Your task to perform on an android device: turn off notifications in google photos Image 0: 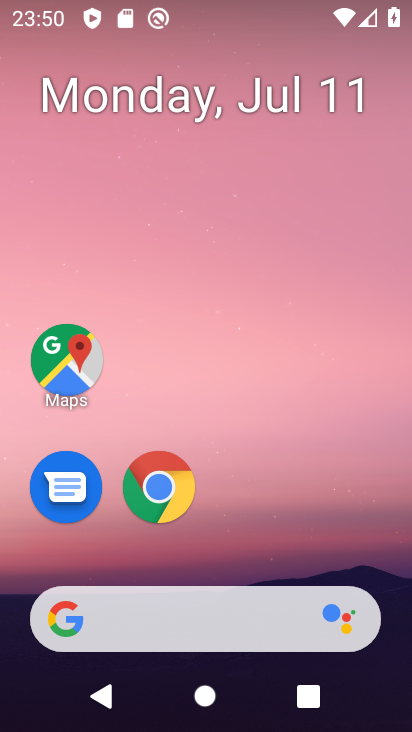
Step 0: drag from (354, 534) to (314, 188)
Your task to perform on an android device: turn off notifications in google photos Image 1: 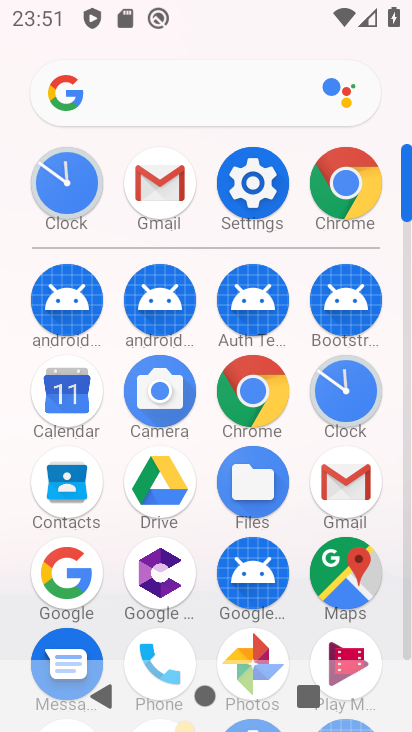
Step 1: drag from (391, 629) to (383, 425)
Your task to perform on an android device: turn off notifications in google photos Image 2: 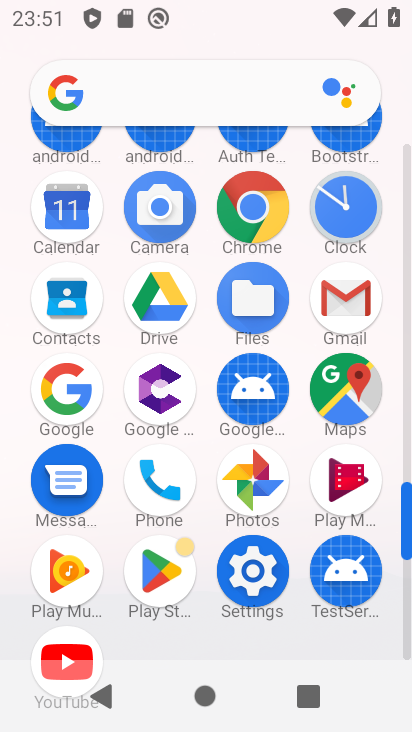
Step 2: click (248, 488)
Your task to perform on an android device: turn off notifications in google photos Image 3: 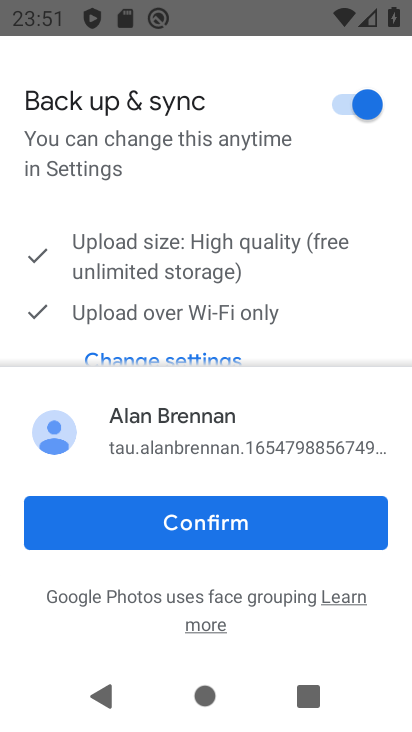
Step 3: click (207, 525)
Your task to perform on an android device: turn off notifications in google photos Image 4: 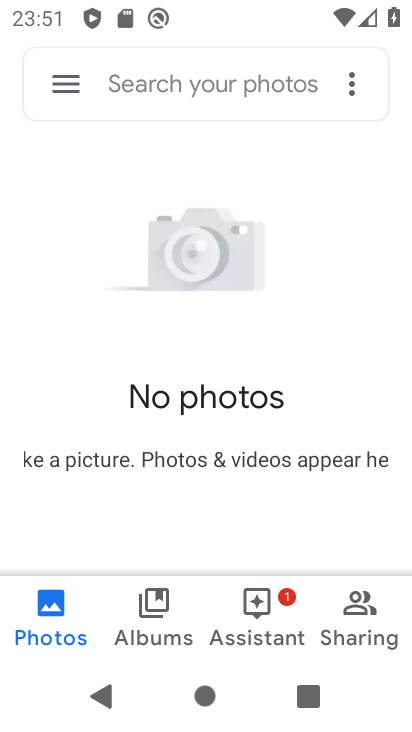
Step 4: click (59, 80)
Your task to perform on an android device: turn off notifications in google photos Image 5: 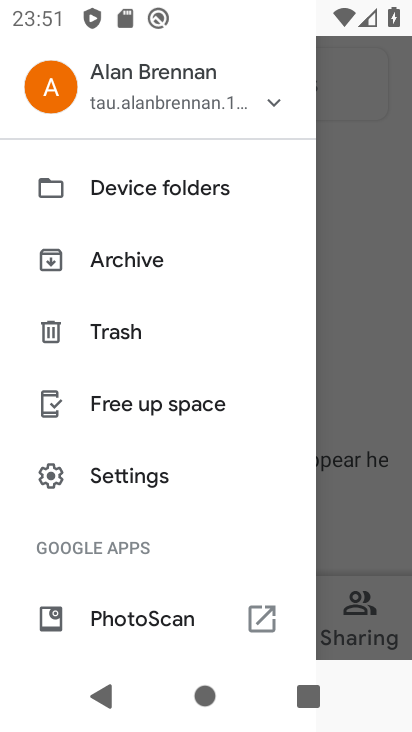
Step 5: click (178, 485)
Your task to perform on an android device: turn off notifications in google photos Image 6: 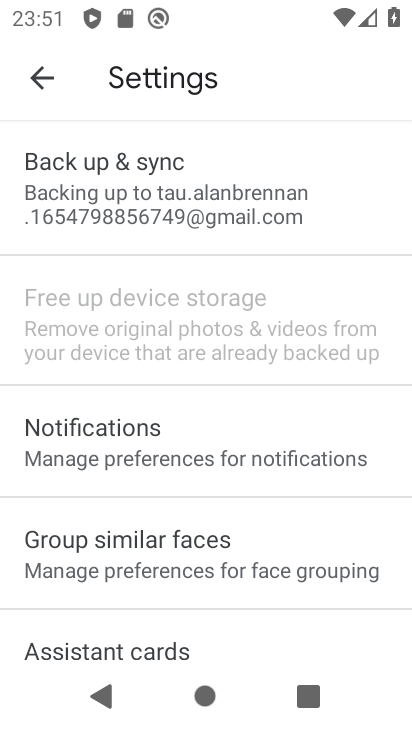
Step 6: drag from (324, 488) to (323, 431)
Your task to perform on an android device: turn off notifications in google photos Image 7: 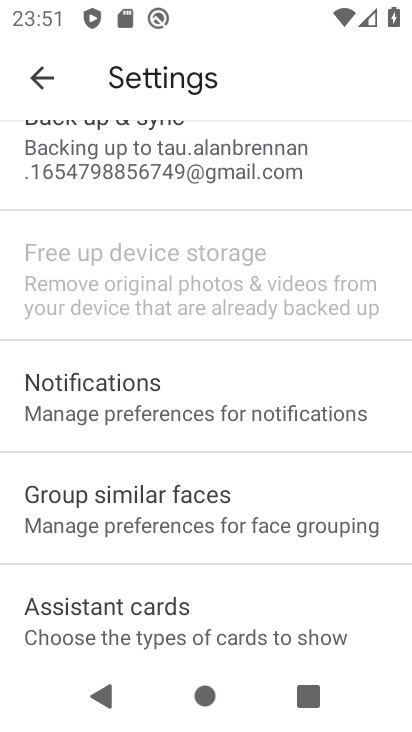
Step 7: drag from (325, 577) to (330, 470)
Your task to perform on an android device: turn off notifications in google photos Image 8: 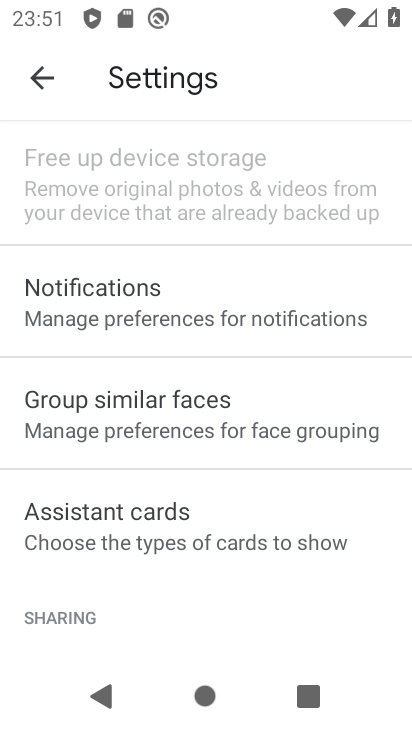
Step 8: drag from (332, 603) to (337, 414)
Your task to perform on an android device: turn off notifications in google photos Image 9: 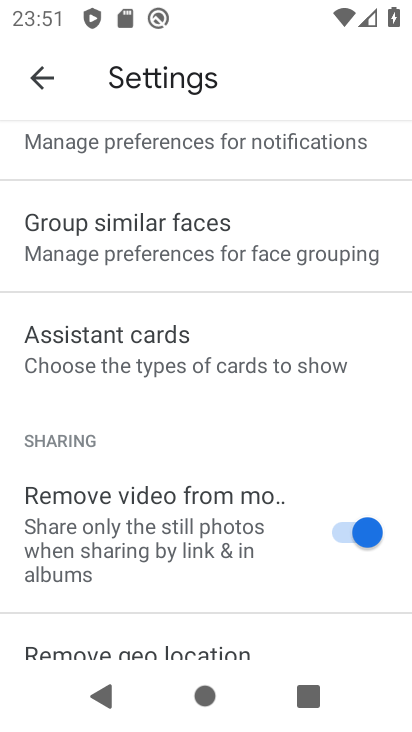
Step 9: drag from (318, 534) to (318, 445)
Your task to perform on an android device: turn off notifications in google photos Image 10: 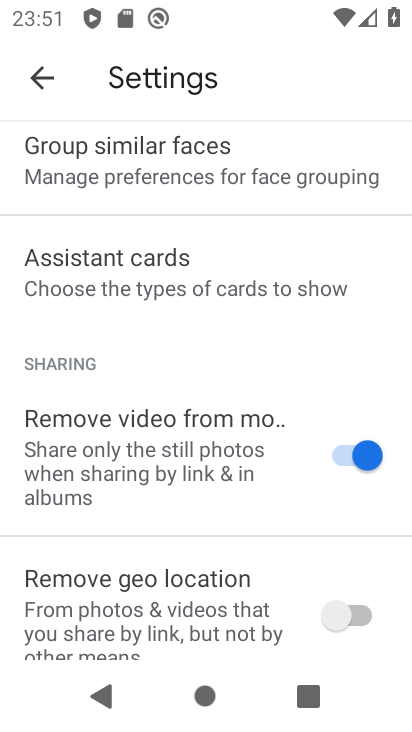
Step 10: drag from (301, 536) to (300, 425)
Your task to perform on an android device: turn off notifications in google photos Image 11: 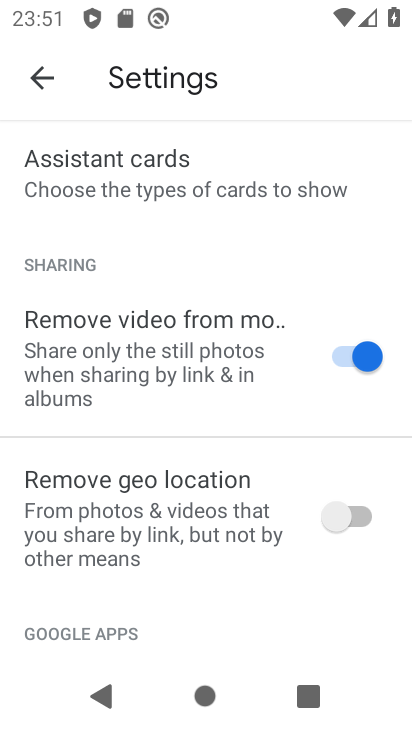
Step 11: drag from (280, 567) to (286, 447)
Your task to perform on an android device: turn off notifications in google photos Image 12: 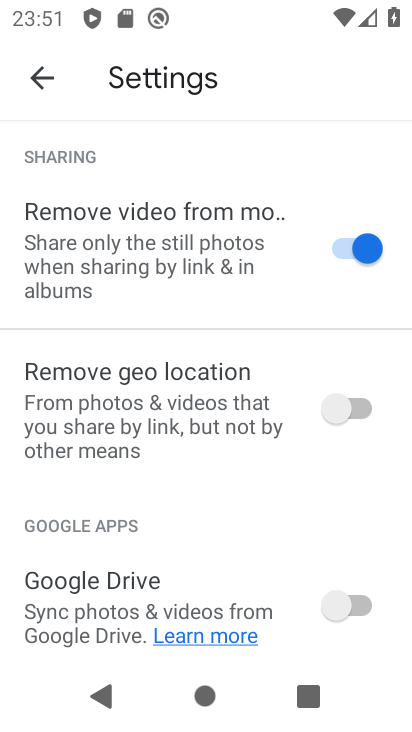
Step 12: drag from (284, 534) to (283, 428)
Your task to perform on an android device: turn off notifications in google photos Image 13: 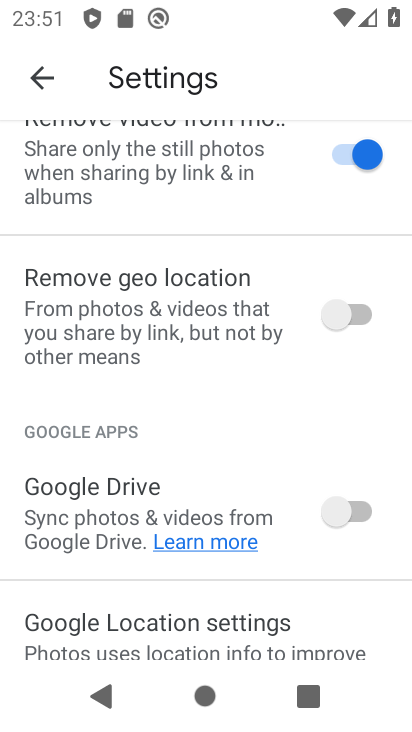
Step 13: drag from (277, 281) to (290, 381)
Your task to perform on an android device: turn off notifications in google photos Image 14: 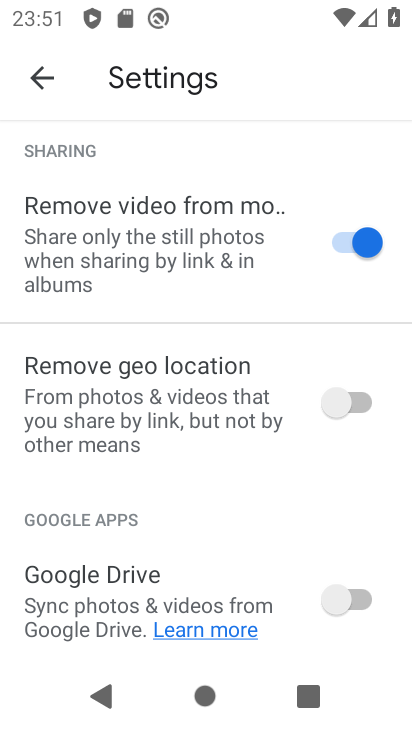
Step 14: drag from (291, 260) to (292, 451)
Your task to perform on an android device: turn off notifications in google photos Image 15: 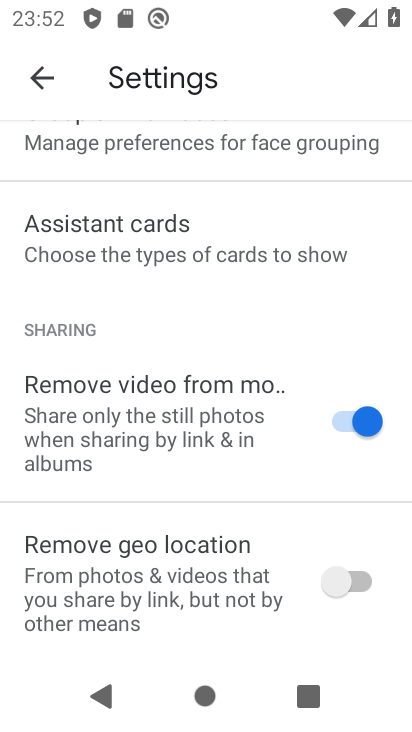
Step 15: drag from (282, 320) to (300, 427)
Your task to perform on an android device: turn off notifications in google photos Image 16: 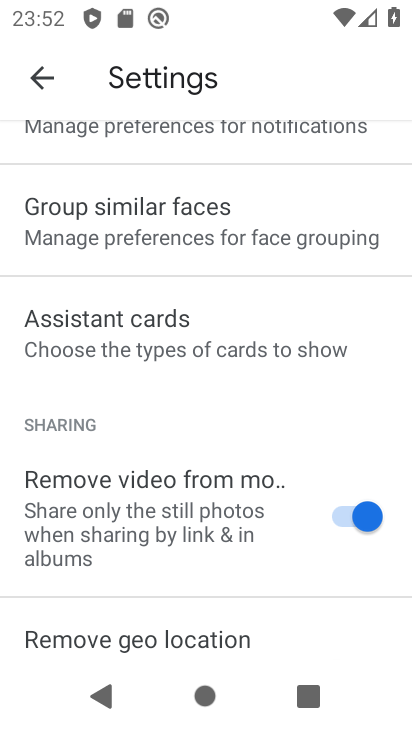
Step 16: drag from (305, 330) to (314, 471)
Your task to perform on an android device: turn off notifications in google photos Image 17: 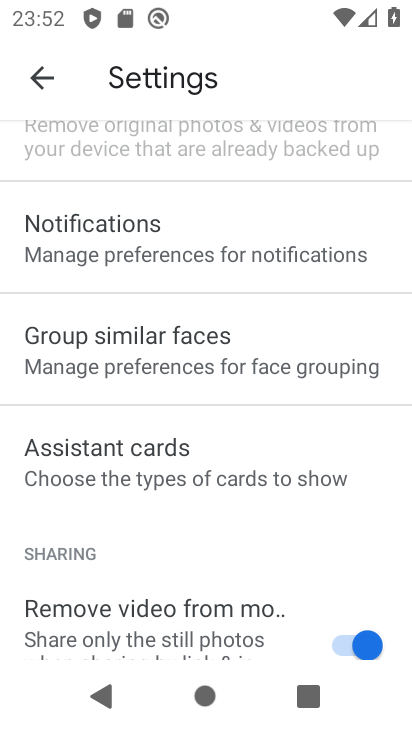
Step 17: drag from (302, 230) to (308, 412)
Your task to perform on an android device: turn off notifications in google photos Image 18: 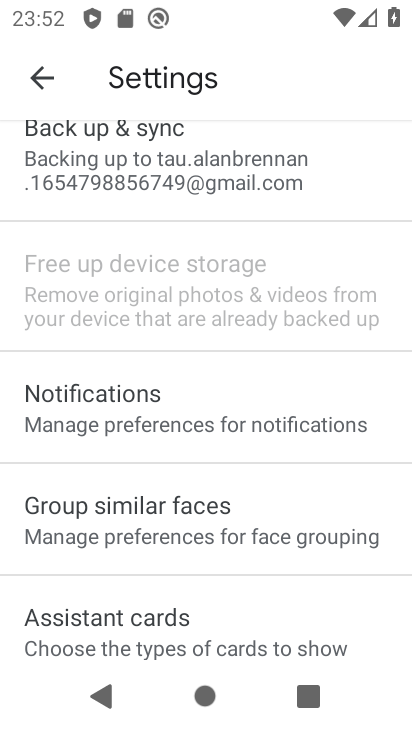
Step 18: click (266, 421)
Your task to perform on an android device: turn off notifications in google photos Image 19: 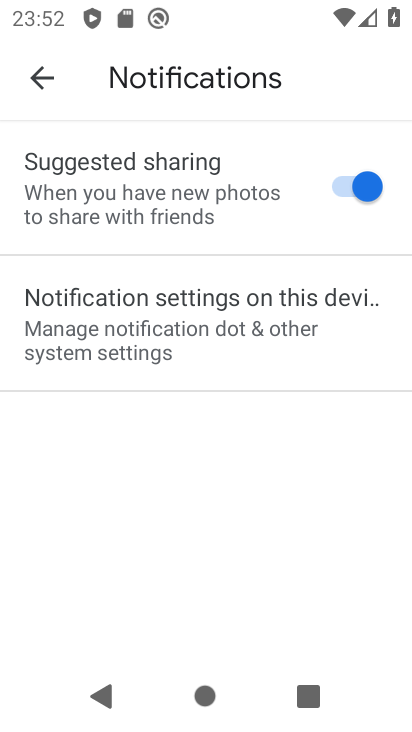
Step 19: click (216, 305)
Your task to perform on an android device: turn off notifications in google photos Image 20: 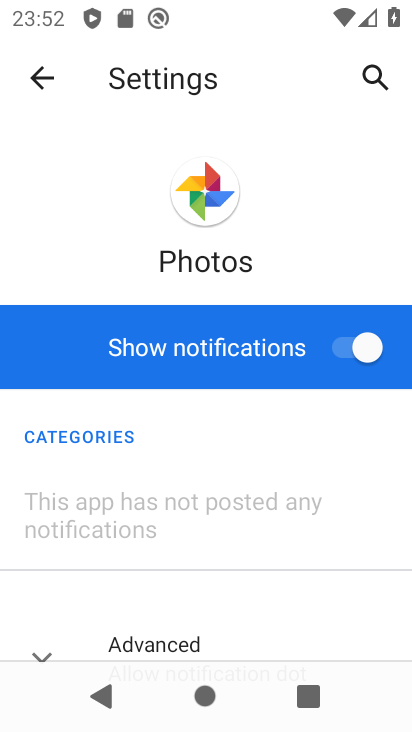
Step 20: click (365, 346)
Your task to perform on an android device: turn off notifications in google photos Image 21: 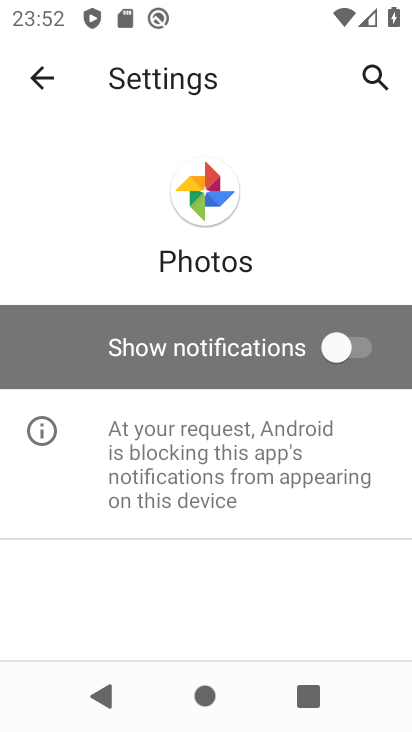
Step 21: task complete